Your task to perform on an android device: show emergency info Image 0: 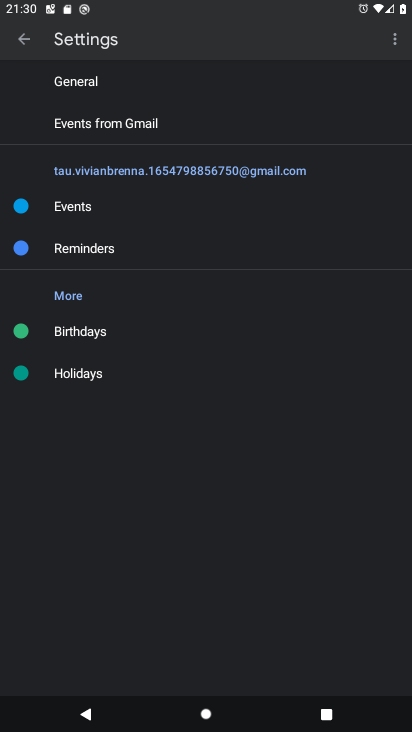
Step 0: press home button
Your task to perform on an android device: show emergency info Image 1: 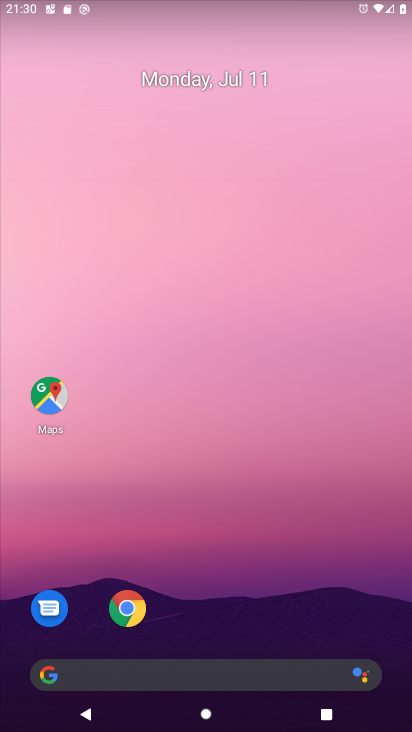
Step 1: drag from (224, 626) to (162, 263)
Your task to perform on an android device: show emergency info Image 2: 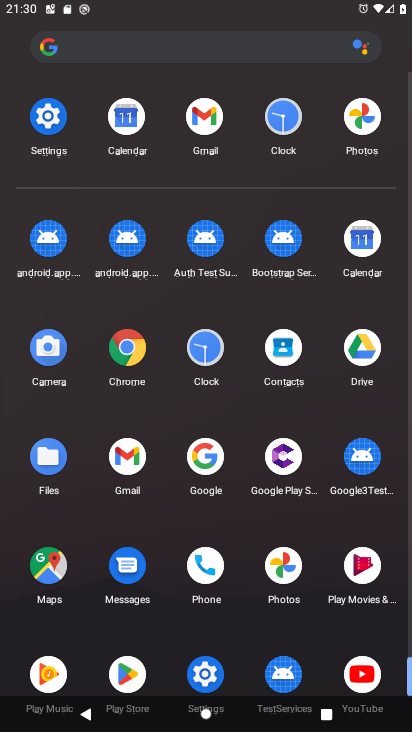
Step 2: click (53, 133)
Your task to perform on an android device: show emergency info Image 3: 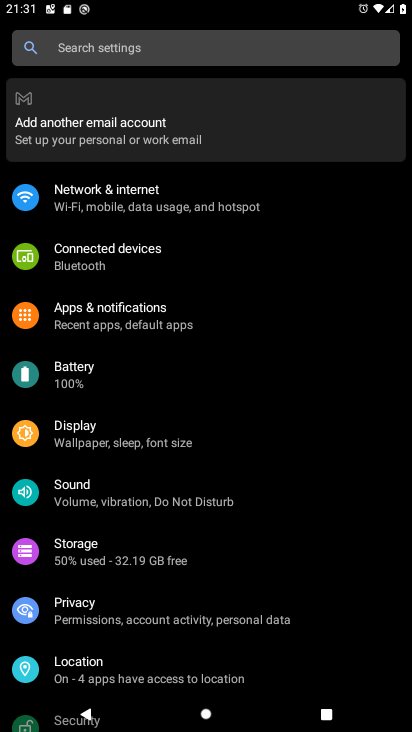
Step 3: drag from (136, 621) to (120, 9)
Your task to perform on an android device: show emergency info Image 4: 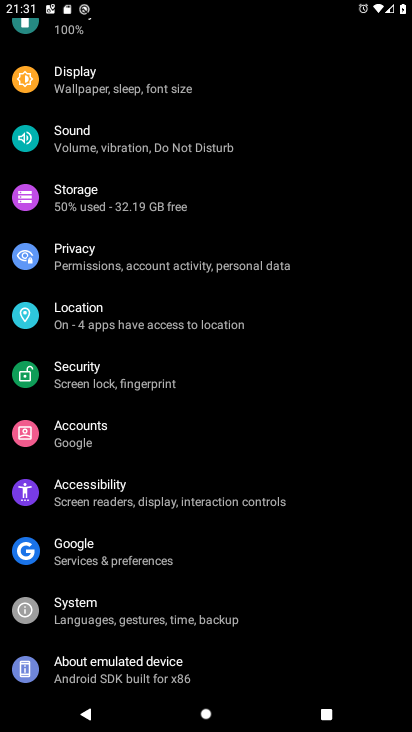
Step 4: click (202, 664)
Your task to perform on an android device: show emergency info Image 5: 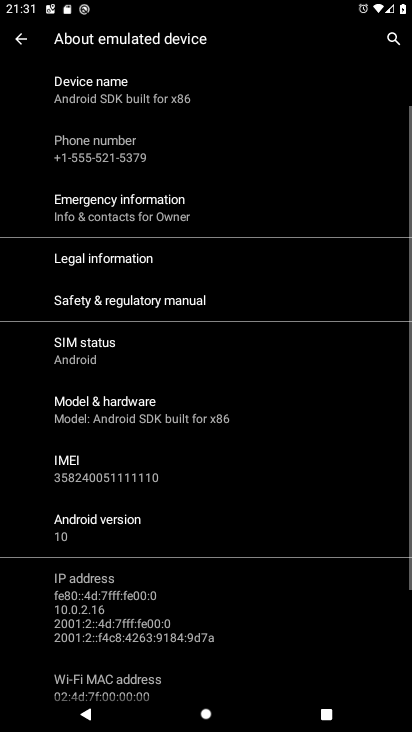
Step 5: drag from (246, 633) to (238, 212)
Your task to perform on an android device: show emergency info Image 6: 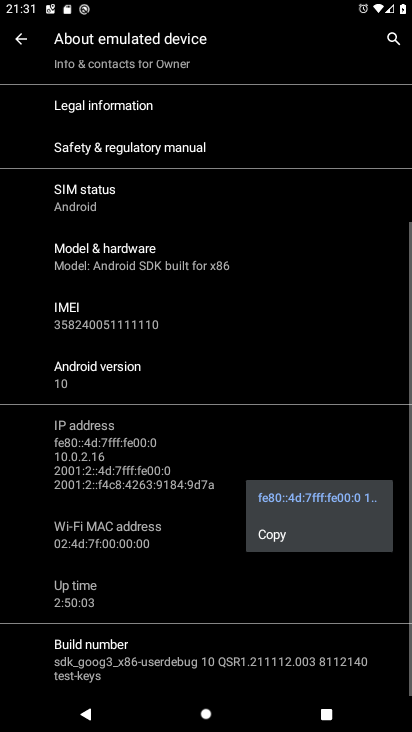
Step 6: drag from (188, 694) to (188, 194)
Your task to perform on an android device: show emergency info Image 7: 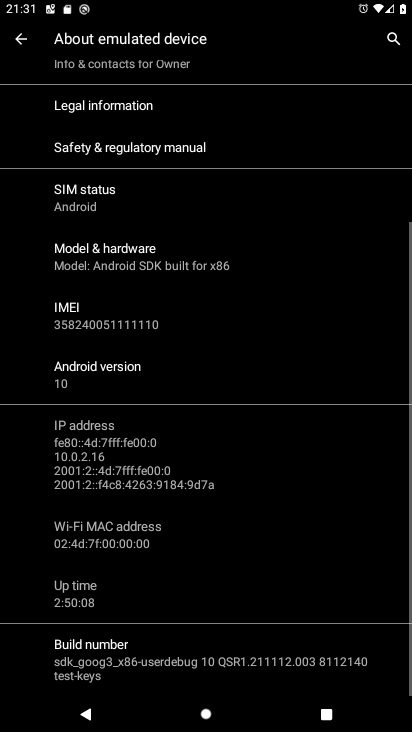
Step 7: drag from (246, 118) to (289, 351)
Your task to perform on an android device: show emergency info Image 8: 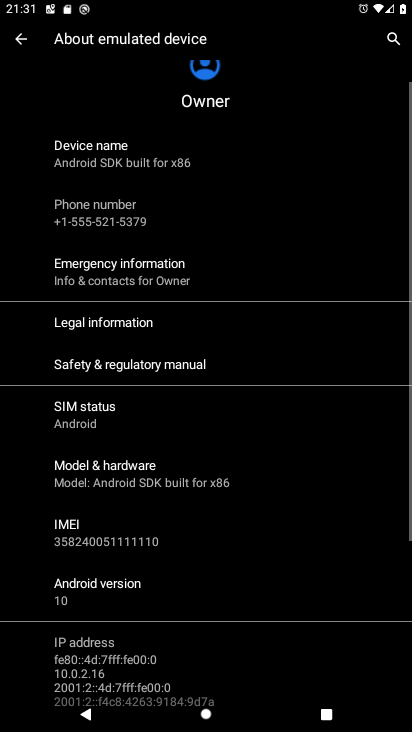
Step 8: click (244, 263)
Your task to perform on an android device: show emergency info Image 9: 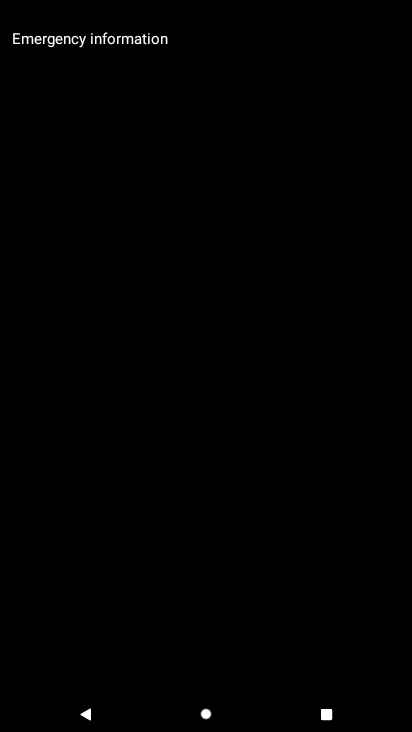
Step 9: task complete